Your task to perform on an android device: Open Google Image 0: 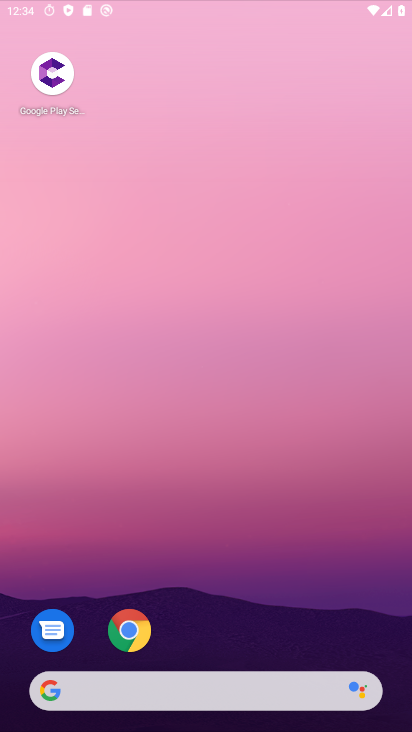
Step 0: drag from (276, 561) to (245, 22)
Your task to perform on an android device: Open Google Image 1: 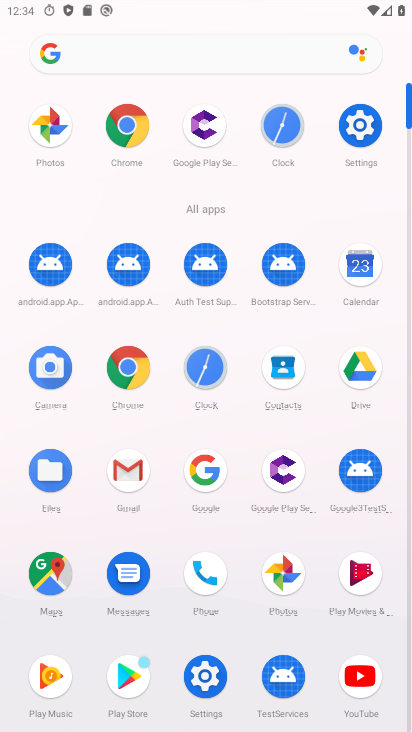
Step 1: click (119, 124)
Your task to perform on an android device: Open Google Image 2: 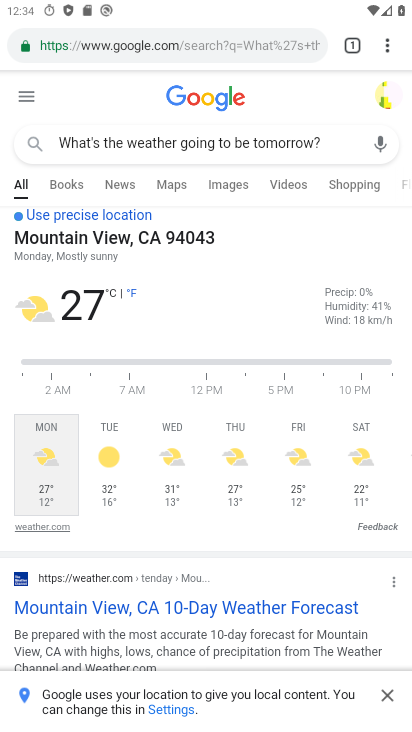
Step 2: click (154, 45)
Your task to perform on an android device: Open Google Image 3: 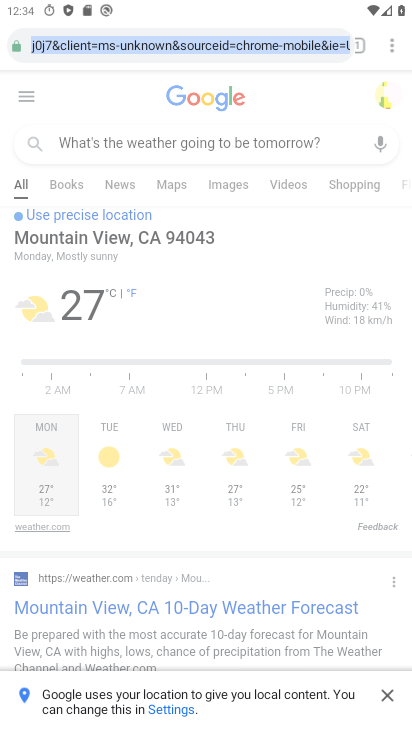
Step 3: click (211, 100)
Your task to perform on an android device: Open Google Image 4: 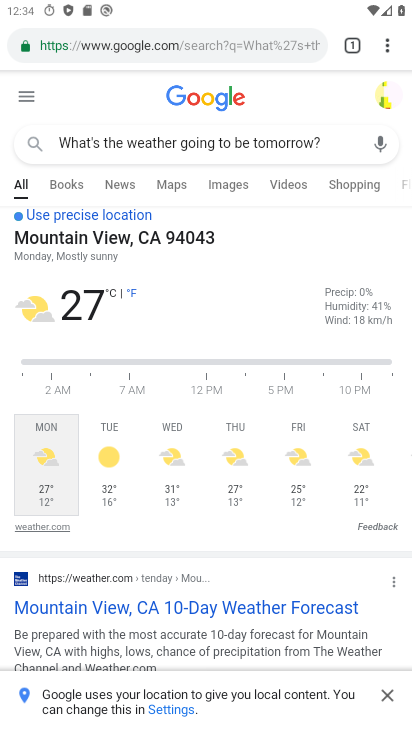
Step 4: click (210, 98)
Your task to perform on an android device: Open Google Image 5: 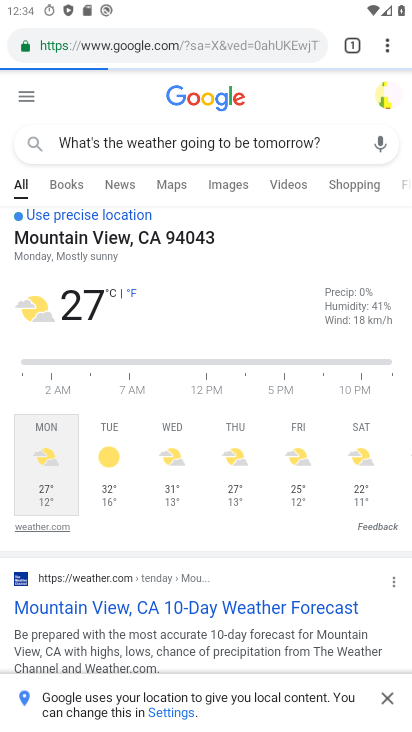
Step 5: click (206, 96)
Your task to perform on an android device: Open Google Image 6: 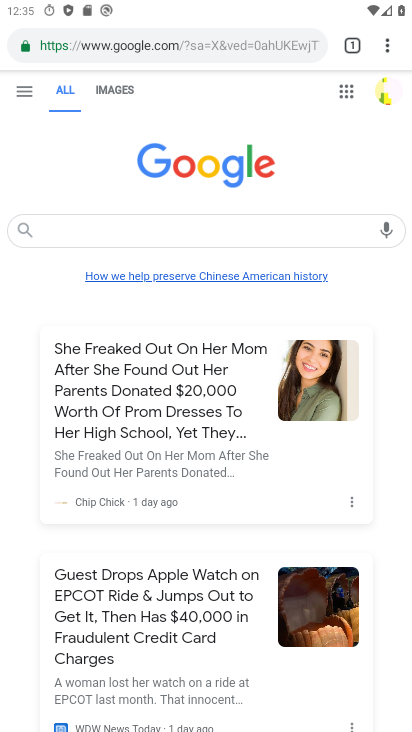
Step 6: task complete